Your task to perform on an android device: turn on priority inbox in the gmail app Image 0: 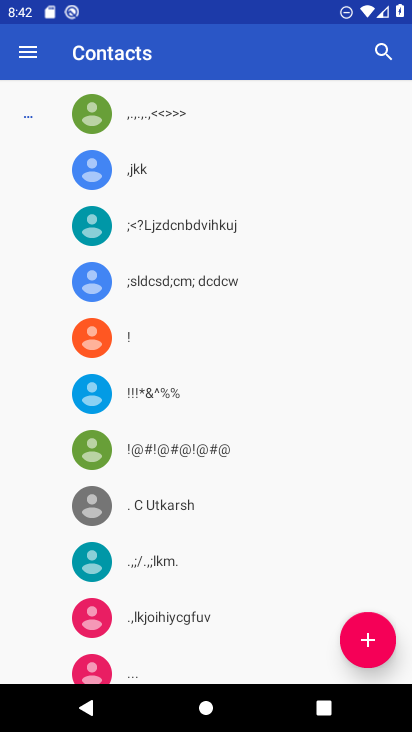
Step 0: press home button
Your task to perform on an android device: turn on priority inbox in the gmail app Image 1: 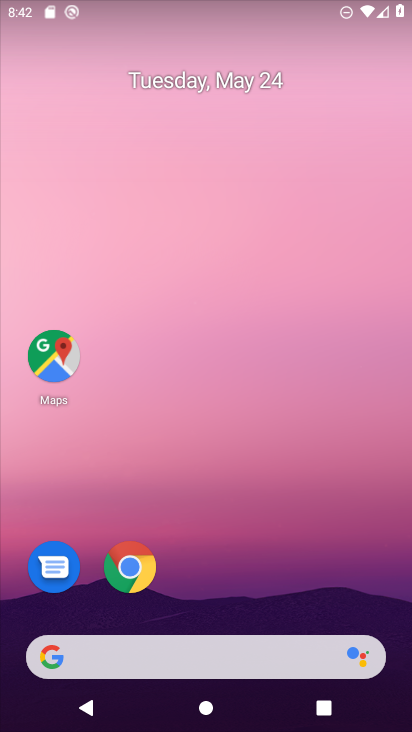
Step 1: drag from (130, 647) to (354, 137)
Your task to perform on an android device: turn on priority inbox in the gmail app Image 2: 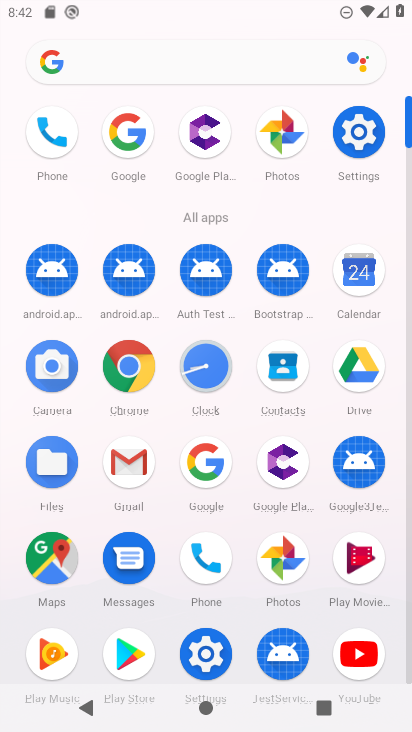
Step 2: click (128, 469)
Your task to perform on an android device: turn on priority inbox in the gmail app Image 3: 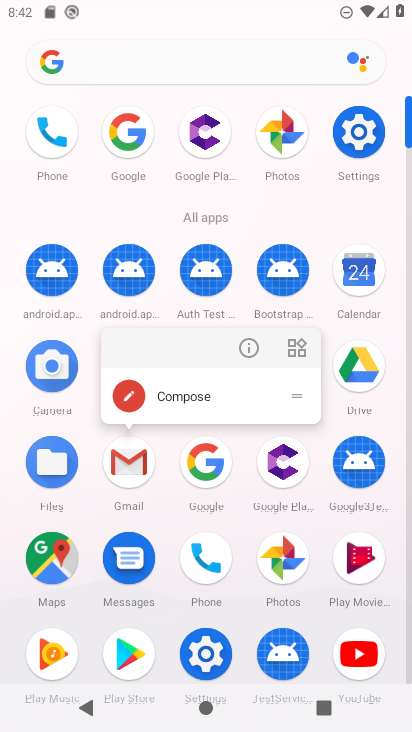
Step 3: click (128, 469)
Your task to perform on an android device: turn on priority inbox in the gmail app Image 4: 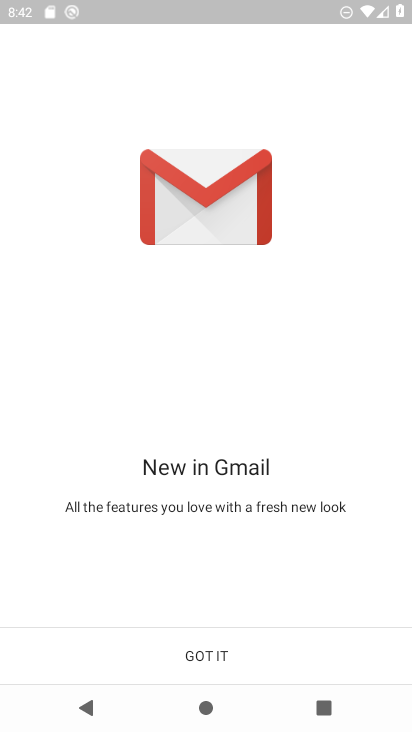
Step 4: click (211, 649)
Your task to perform on an android device: turn on priority inbox in the gmail app Image 5: 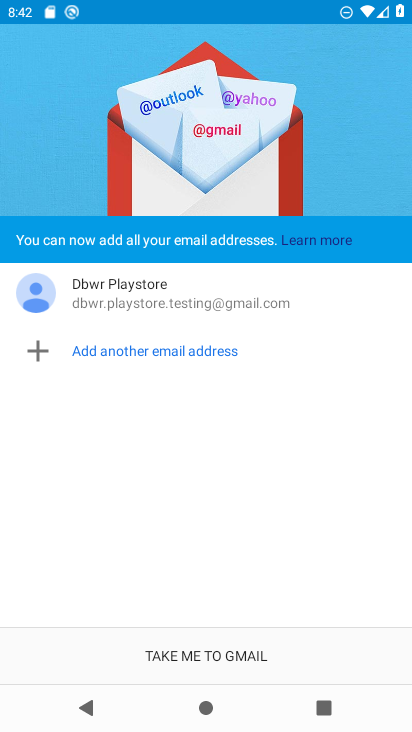
Step 5: click (211, 649)
Your task to perform on an android device: turn on priority inbox in the gmail app Image 6: 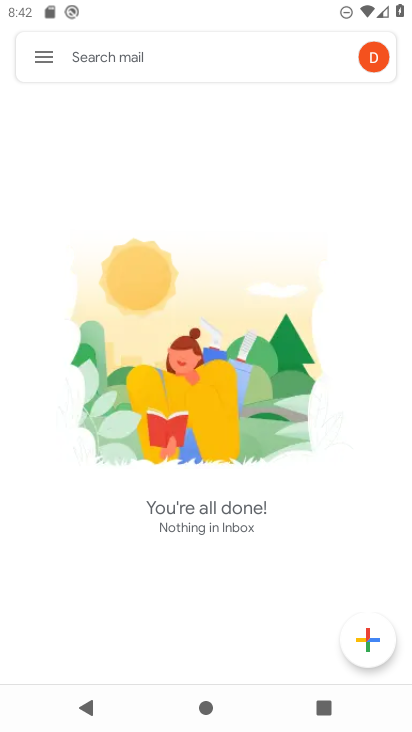
Step 6: click (46, 56)
Your task to perform on an android device: turn on priority inbox in the gmail app Image 7: 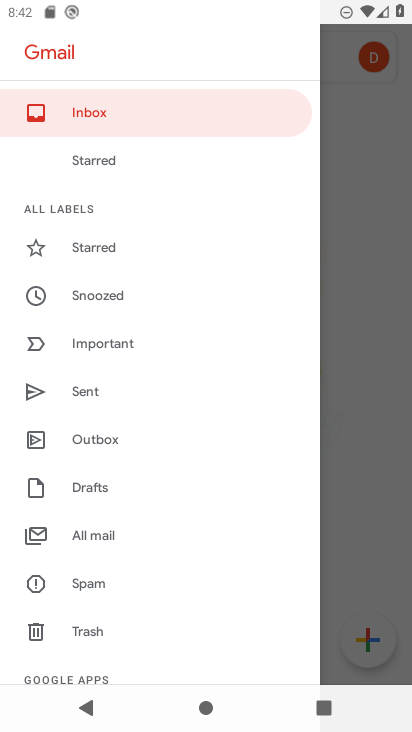
Step 7: drag from (123, 623) to (256, 101)
Your task to perform on an android device: turn on priority inbox in the gmail app Image 8: 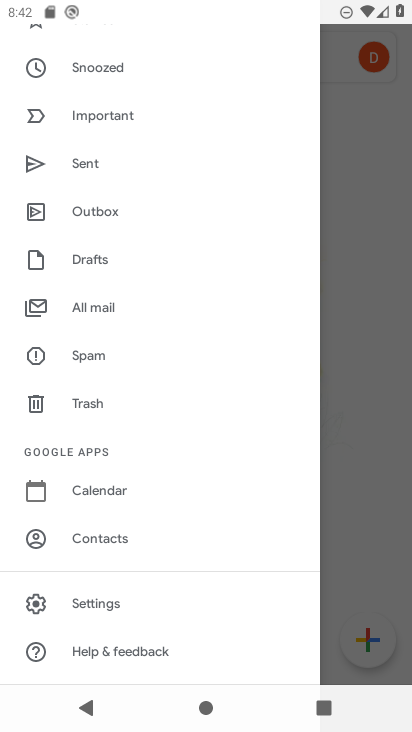
Step 8: click (93, 605)
Your task to perform on an android device: turn on priority inbox in the gmail app Image 9: 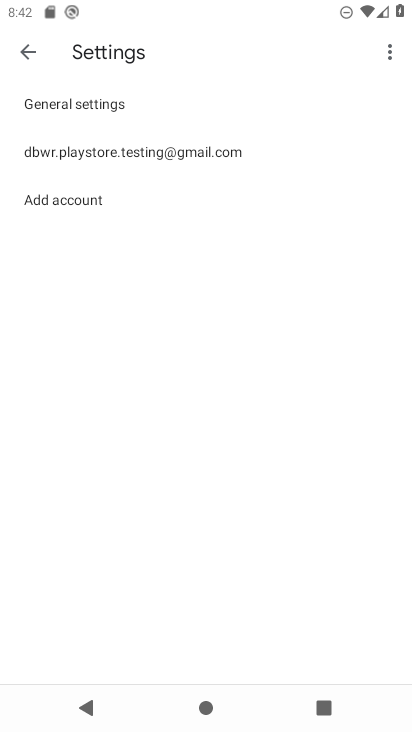
Step 9: click (167, 149)
Your task to perform on an android device: turn on priority inbox in the gmail app Image 10: 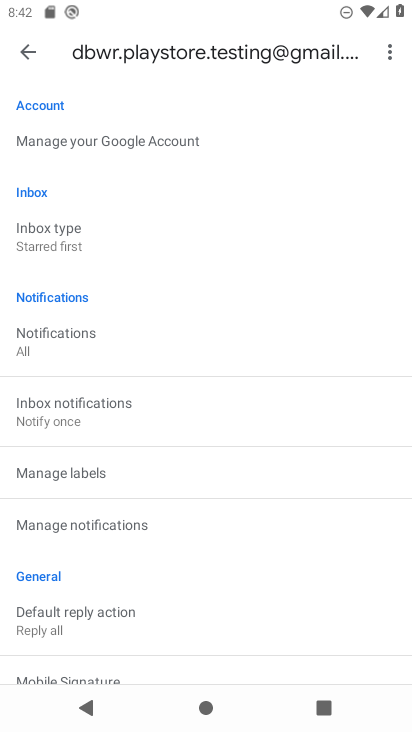
Step 10: click (59, 242)
Your task to perform on an android device: turn on priority inbox in the gmail app Image 11: 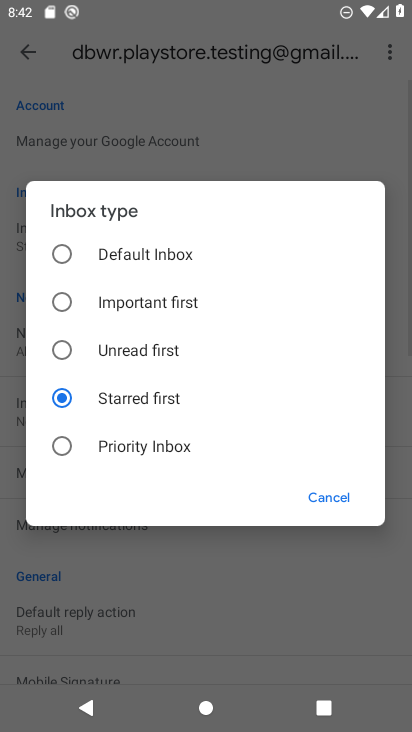
Step 11: click (69, 451)
Your task to perform on an android device: turn on priority inbox in the gmail app Image 12: 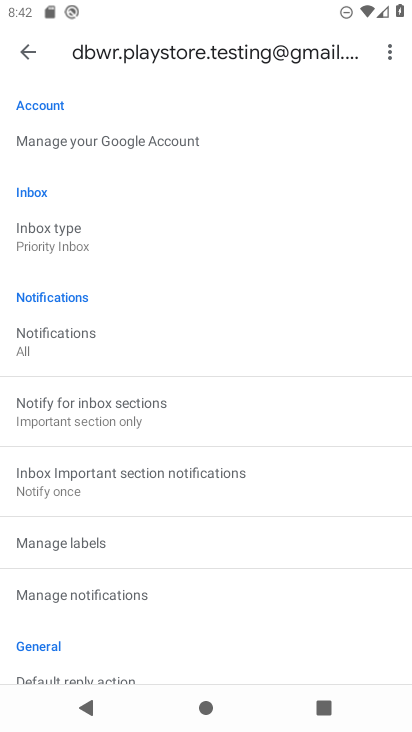
Step 12: task complete